Your task to perform on an android device: turn off data saver in the chrome app Image 0: 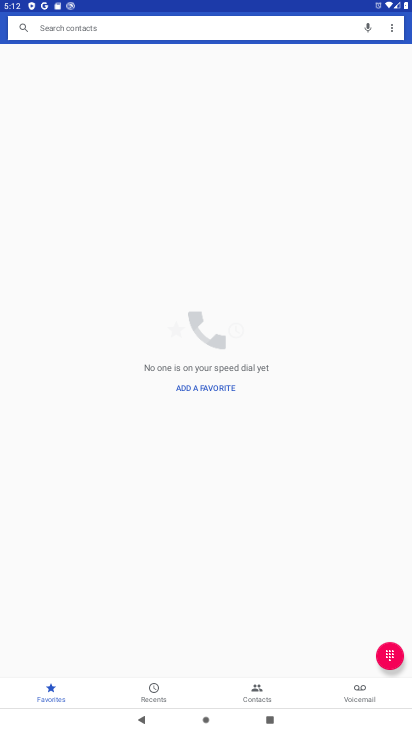
Step 0: press home button
Your task to perform on an android device: turn off data saver in the chrome app Image 1: 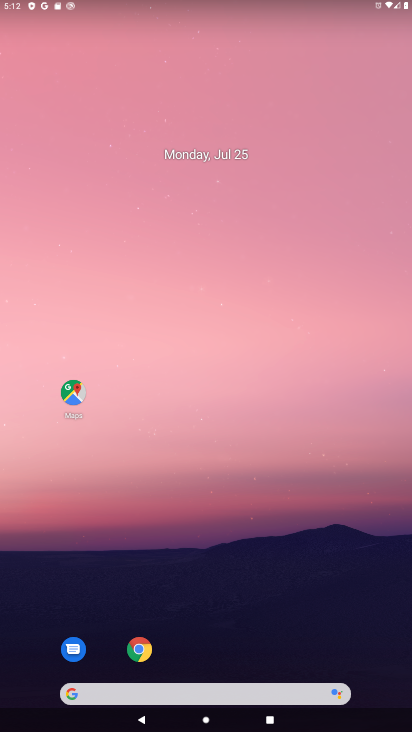
Step 1: drag from (123, 673) to (278, 92)
Your task to perform on an android device: turn off data saver in the chrome app Image 2: 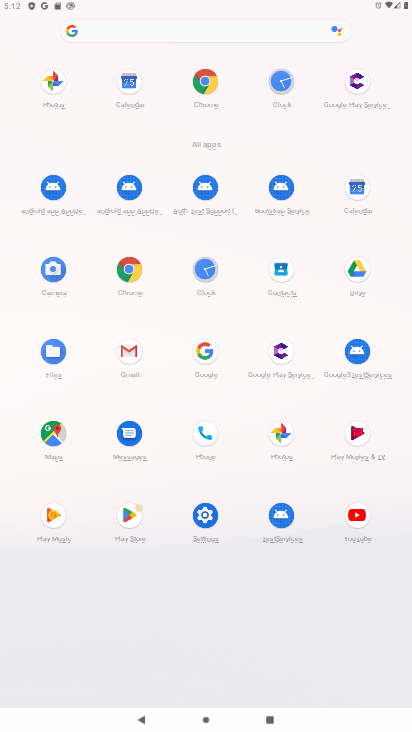
Step 2: click (127, 262)
Your task to perform on an android device: turn off data saver in the chrome app Image 3: 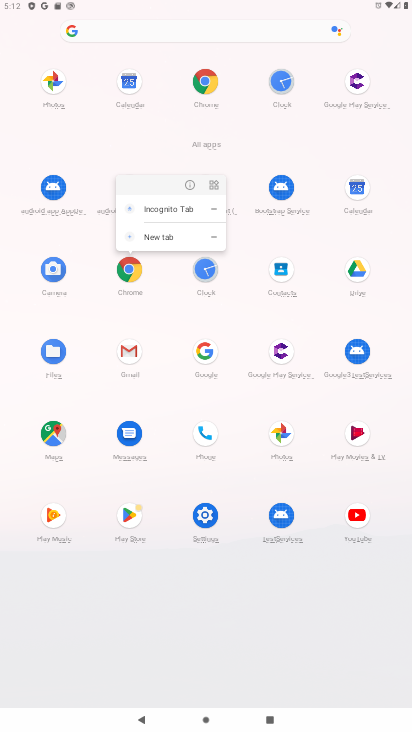
Step 3: click (120, 270)
Your task to perform on an android device: turn off data saver in the chrome app Image 4: 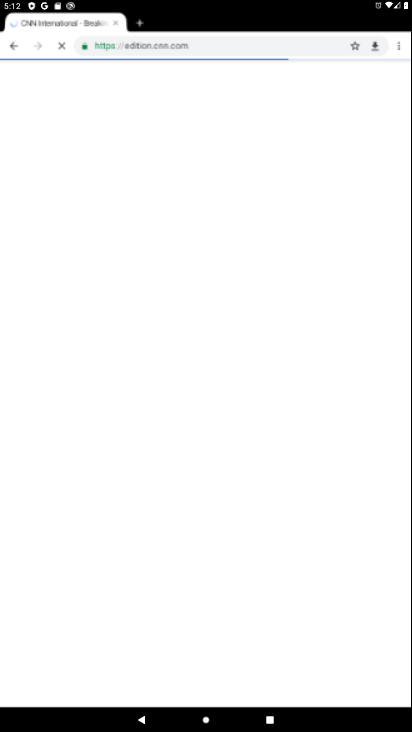
Step 4: drag from (399, 49) to (310, 280)
Your task to perform on an android device: turn off data saver in the chrome app Image 5: 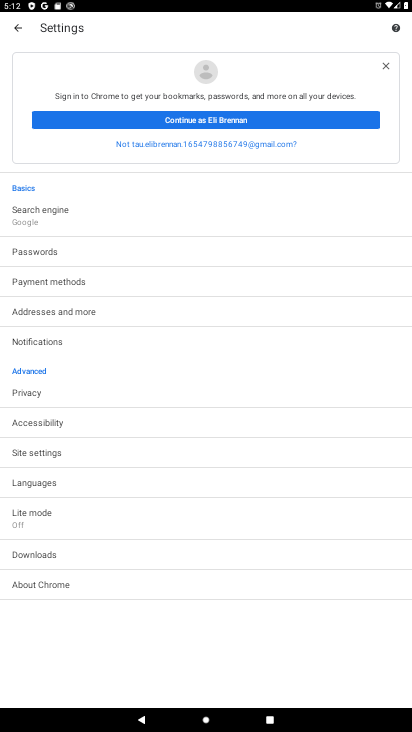
Step 5: click (37, 515)
Your task to perform on an android device: turn off data saver in the chrome app Image 6: 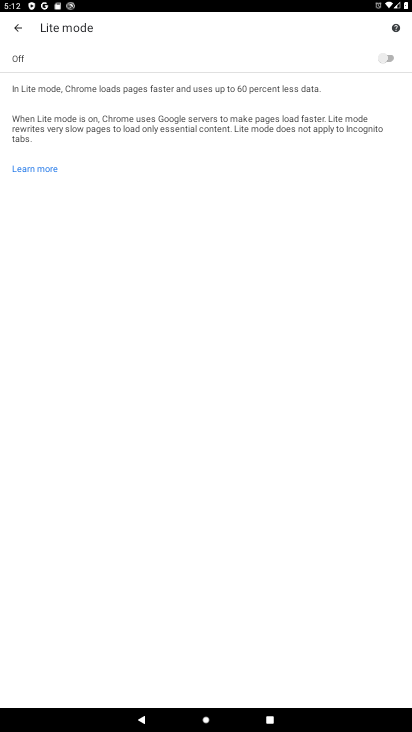
Step 6: task complete